Your task to perform on an android device: see creations saved in the google photos Image 0: 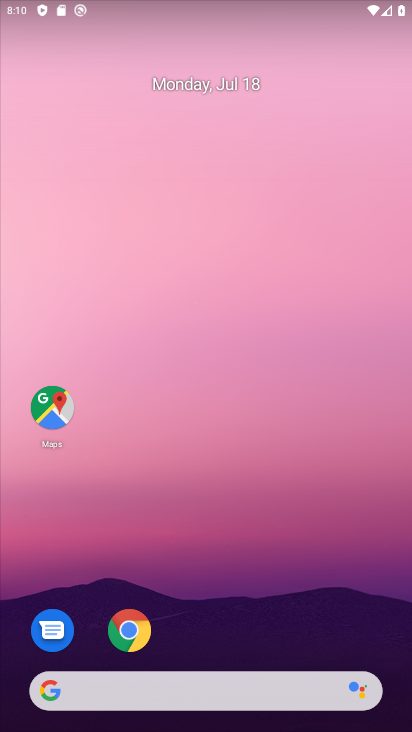
Step 0: drag from (227, 645) to (227, 8)
Your task to perform on an android device: see creations saved in the google photos Image 1: 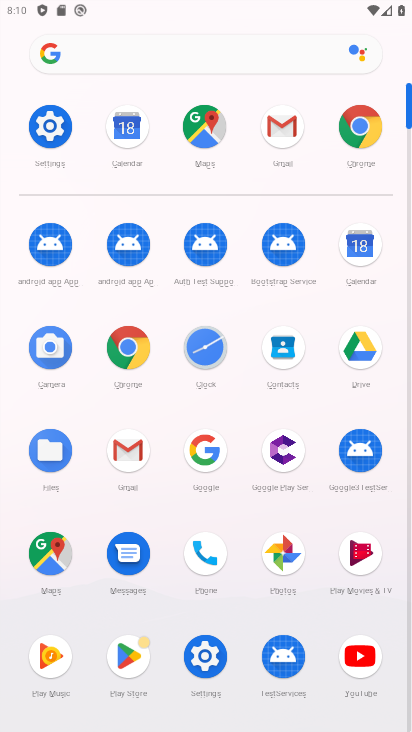
Step 1: click (288, 549)
Your task to perform on an android device: see creations saved in the google photos Image 2: 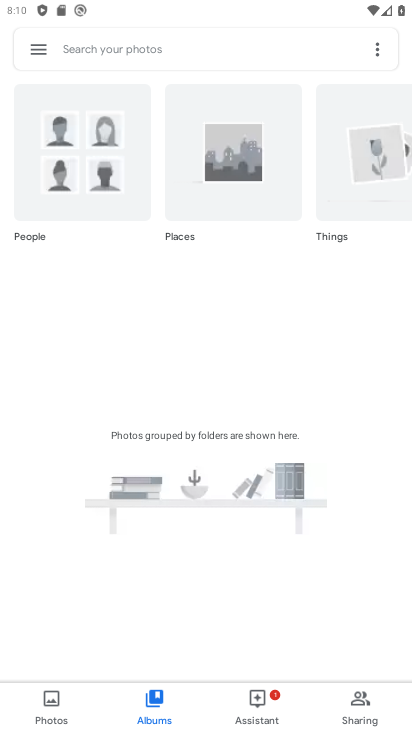
Step 2: task complete